Your task to perform on an android device: Open calendar and show me the second week of next month Image 0: 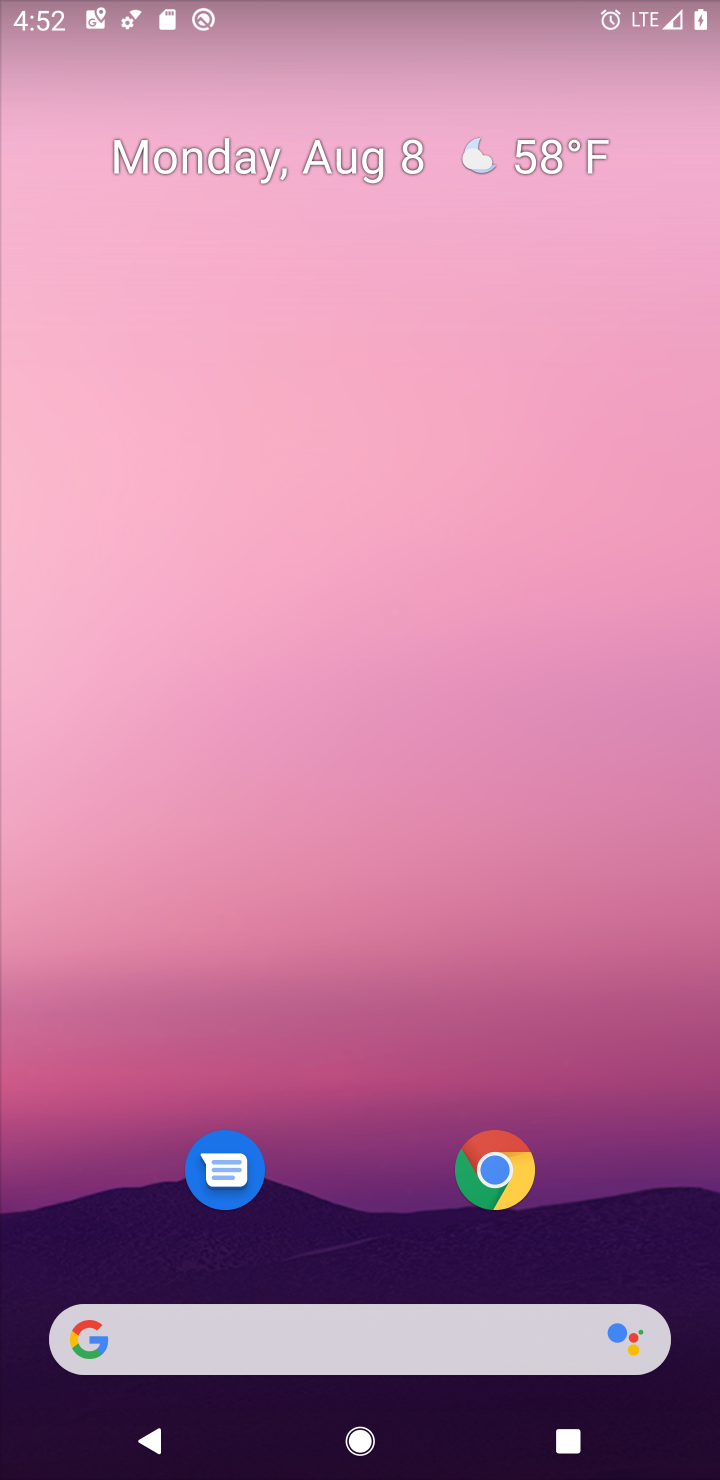
Step 0: drag from (367, 1064) to (367, 238)
Your task to perform on an android device: Open calendar and show me the second week of next month Image 1: 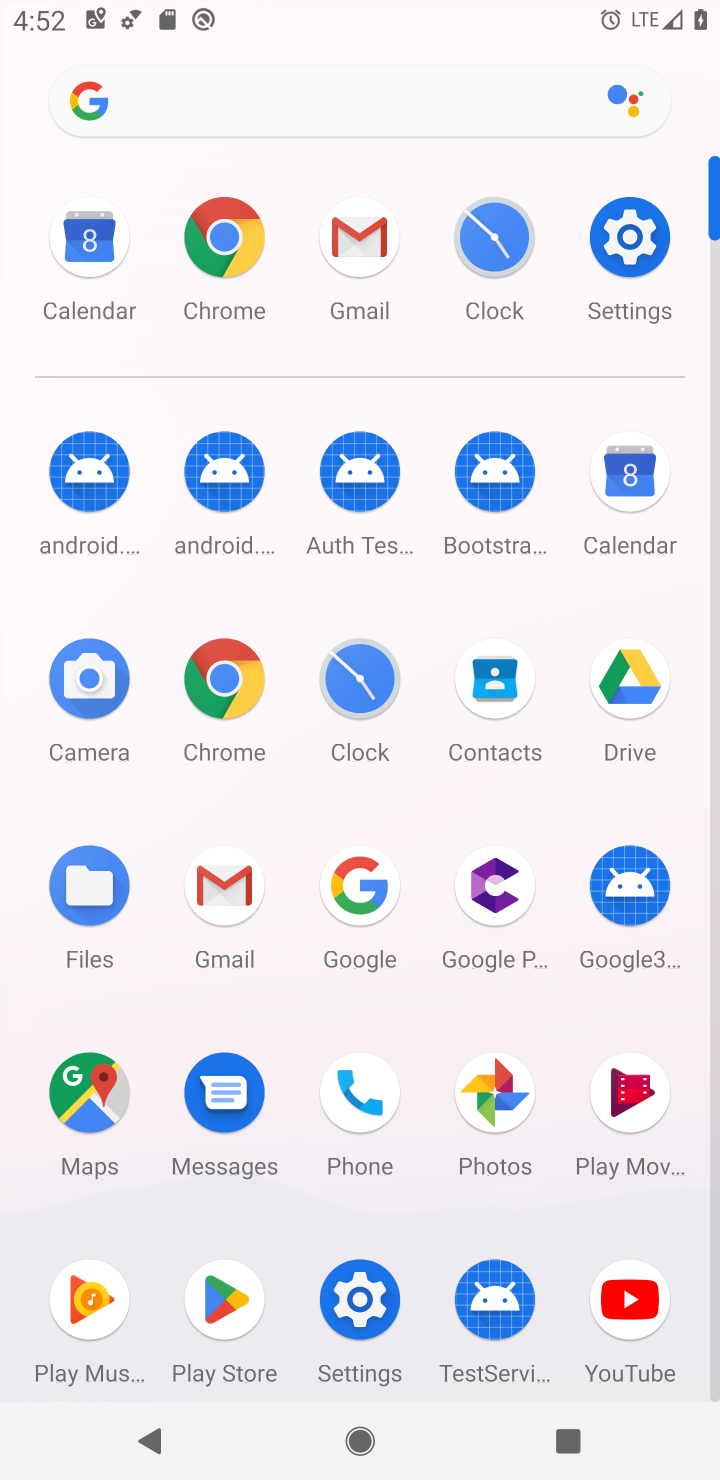
Step 1: click (615, 510)
Your task to perform on an android device: Open calendar and show me the second week of next month Image 2: 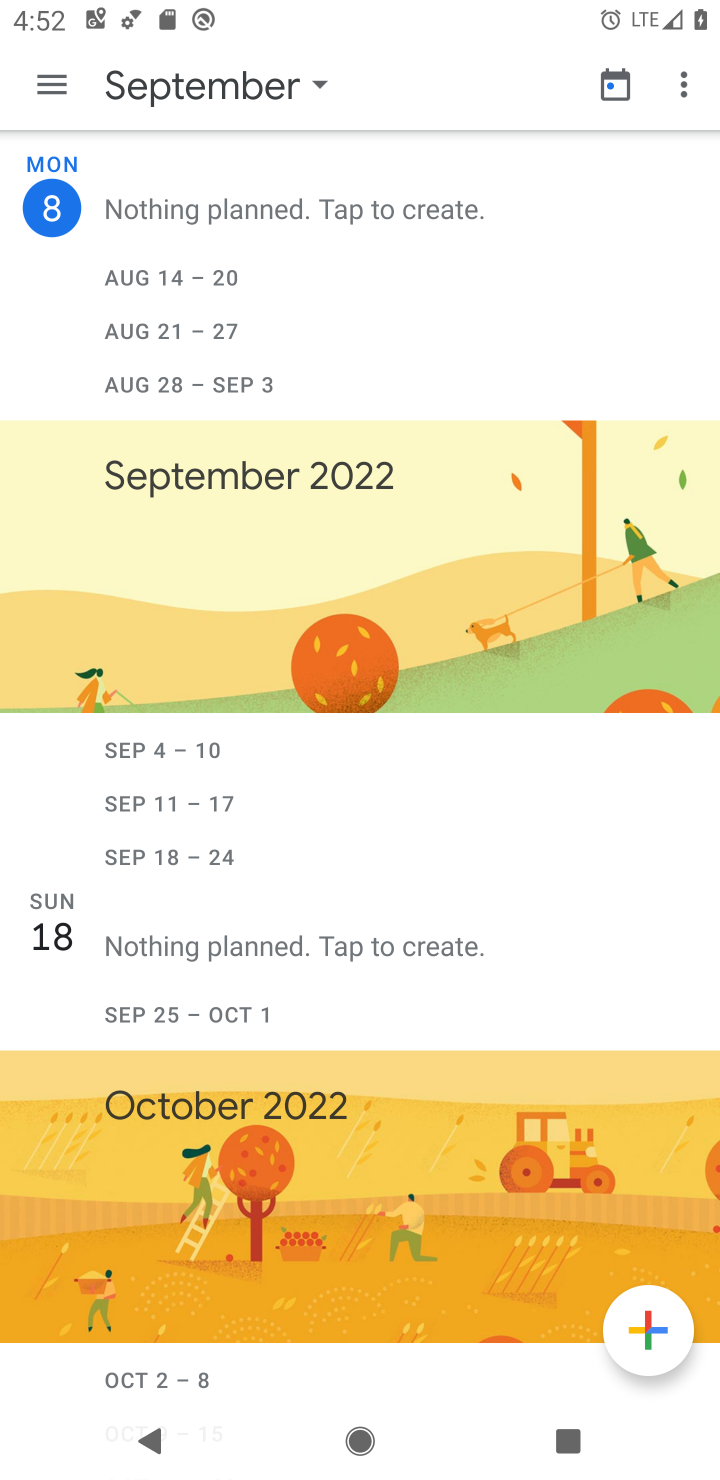
Step 2: click (241, 96)
Your task to perform on an android device: Open calendar and show me the second week of next month Image 3: 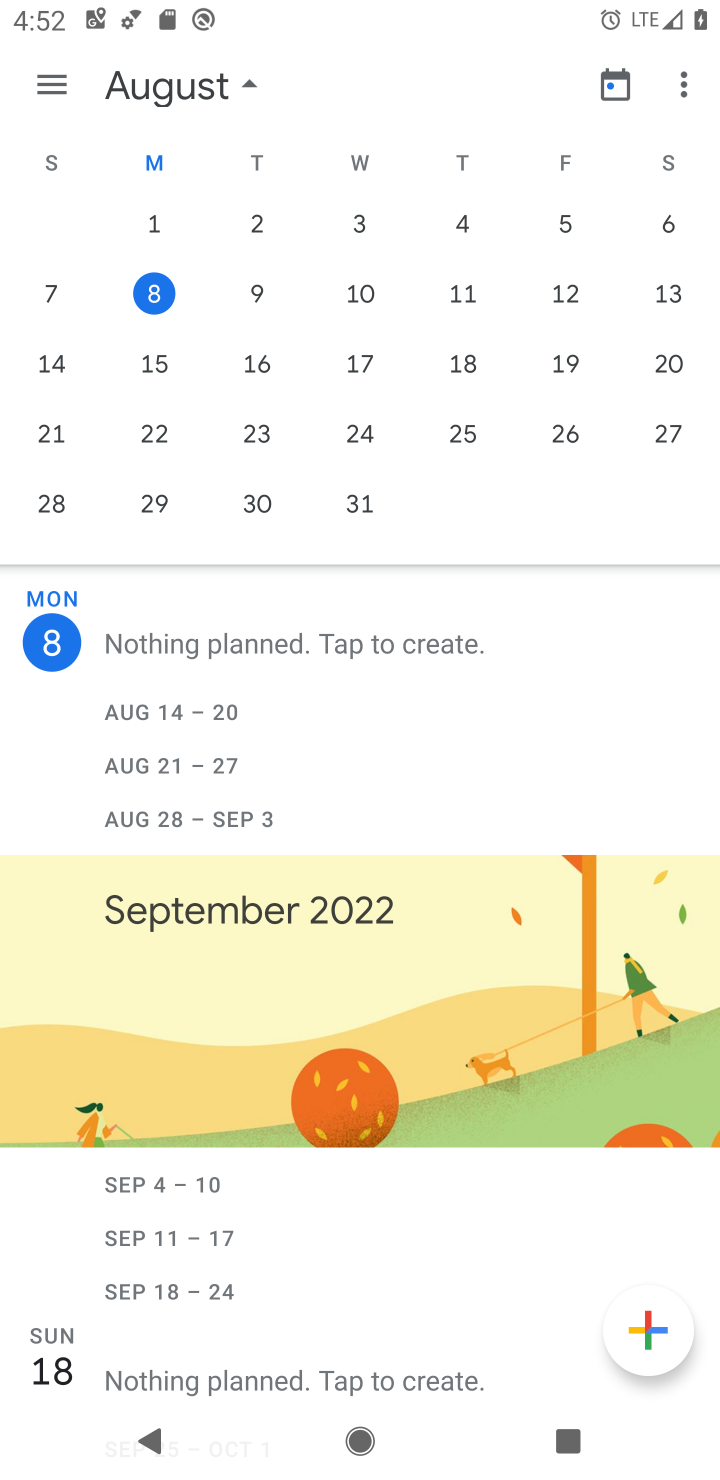
Step 3: drag from (69, 275) to (0, 320)
Your task to perform on an android device: Open calendar and show me the second week of next month Image 4: 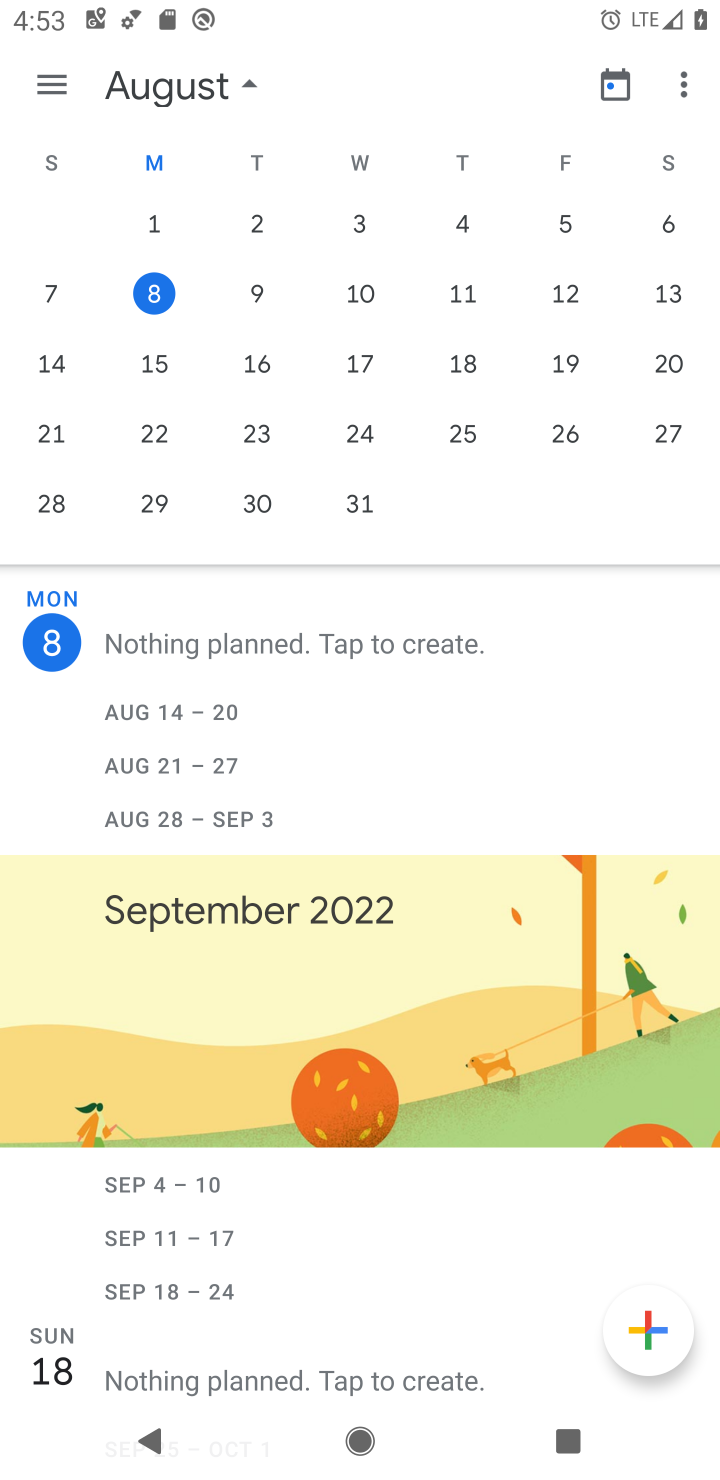
Step 4: drag from (596, 314) to (43, 305)
Your task to perform on an android device: Open calendar and show me the second week of next month Image 5: 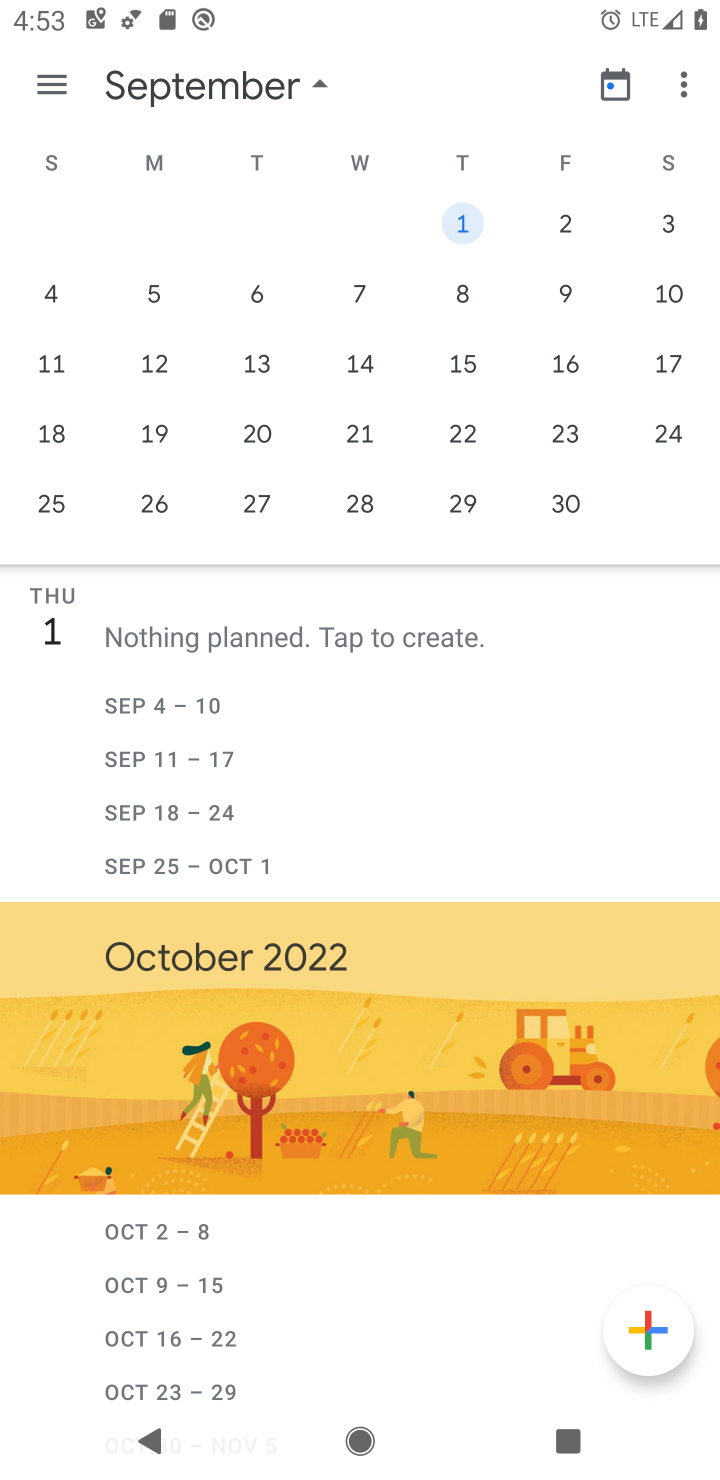
Step 5: click (39, 303)
Your task to perform on an android device: Open calendar and show me the second week of next month Image 6: 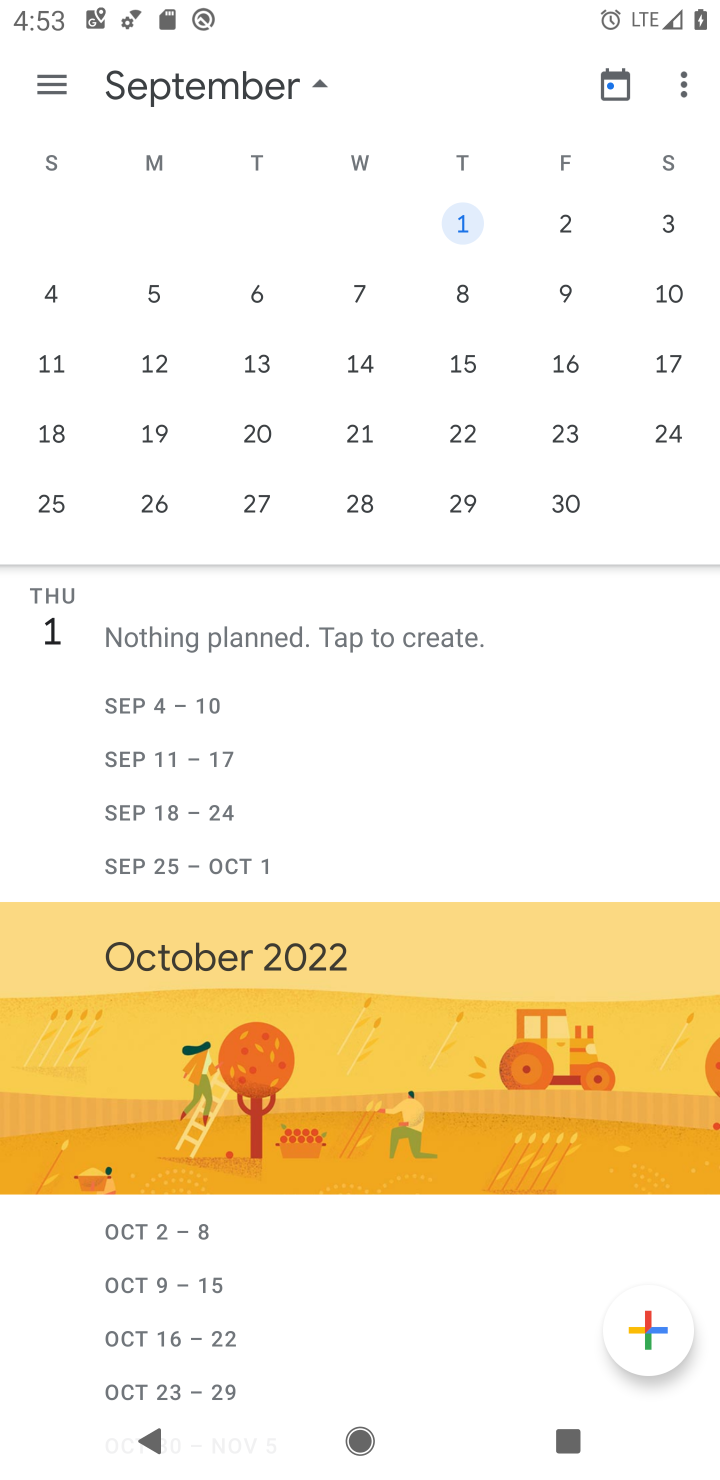
Step 6: click (65, 291)
Your task to perform on an android device: Open calendar and show me the second week of next month Image 7: 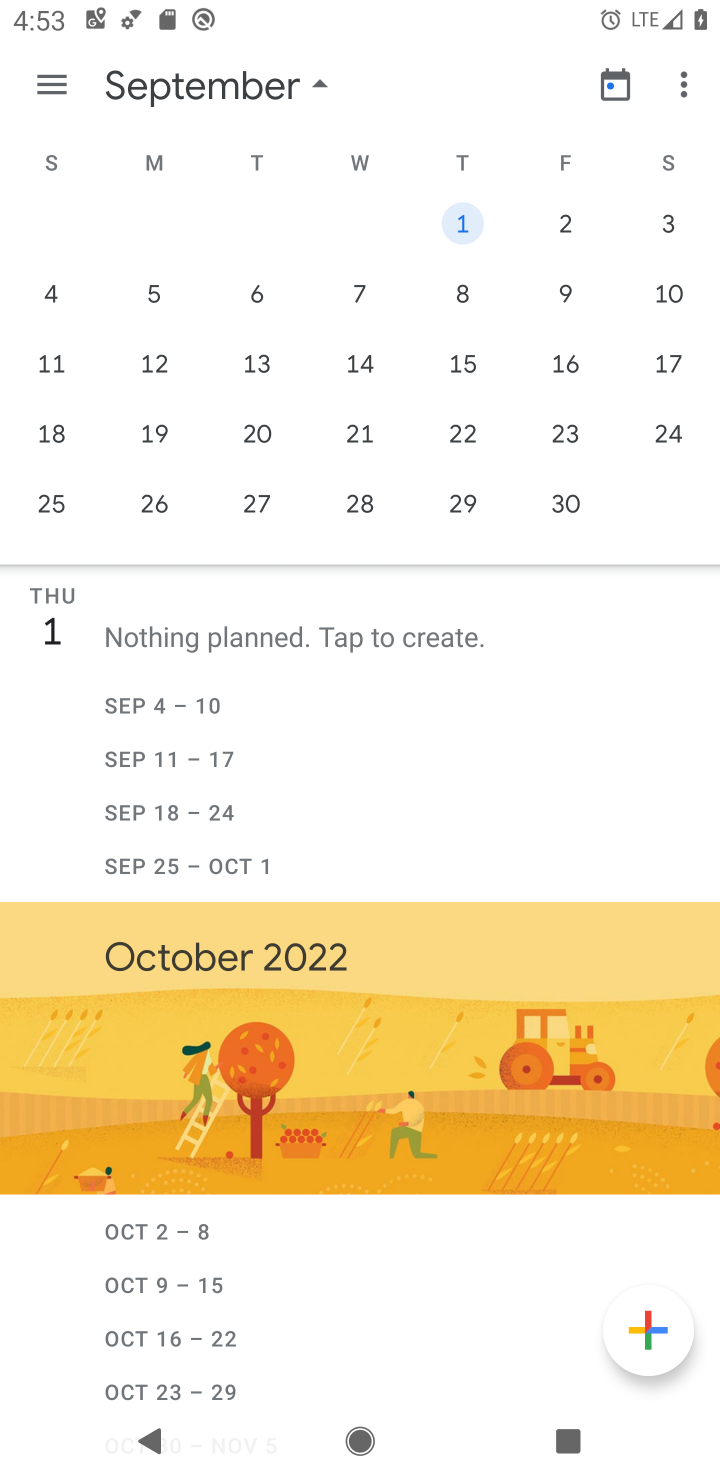
Step 7: click (52, 289)
Your task to perform on an android device: Open calendar and show me the second week of next month Image 8: 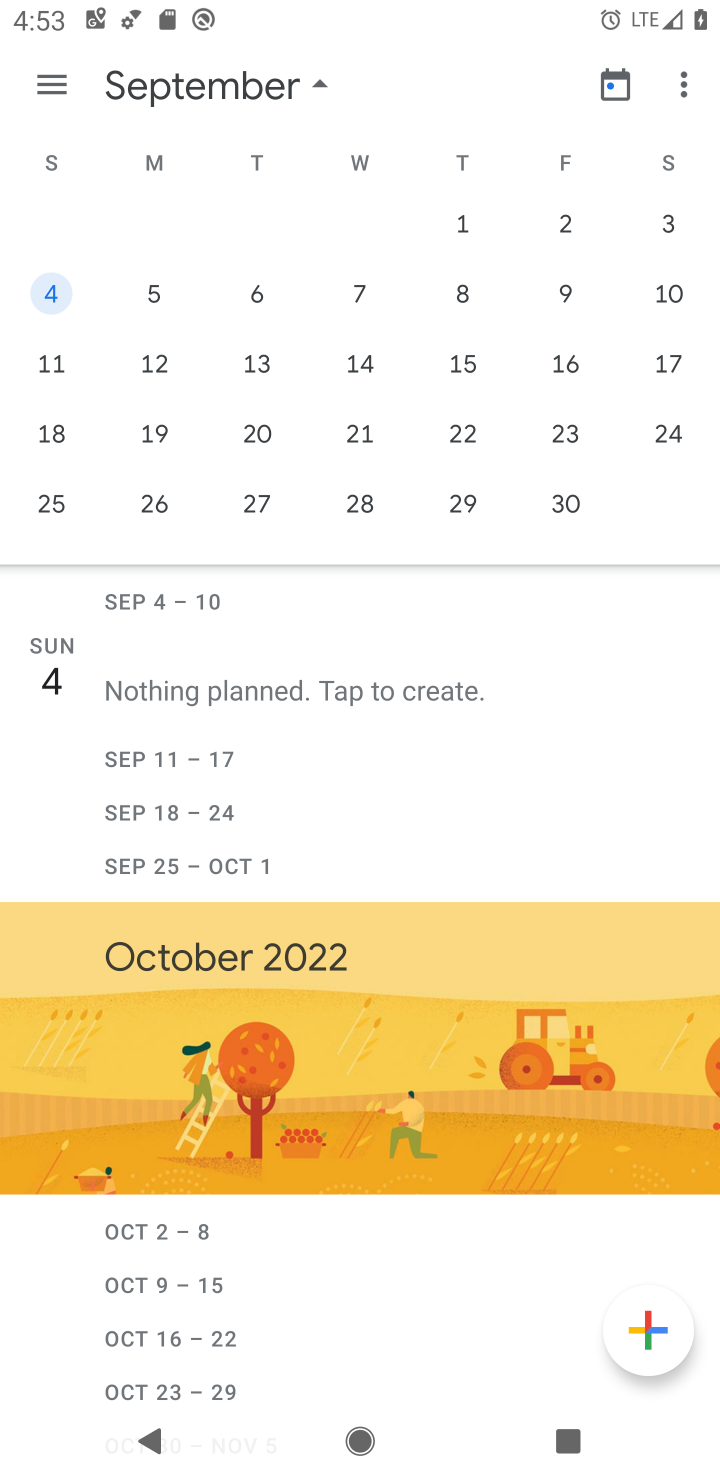
Step 8: task complete